Your task to perform on an android device: Go to notification settings Image 0: 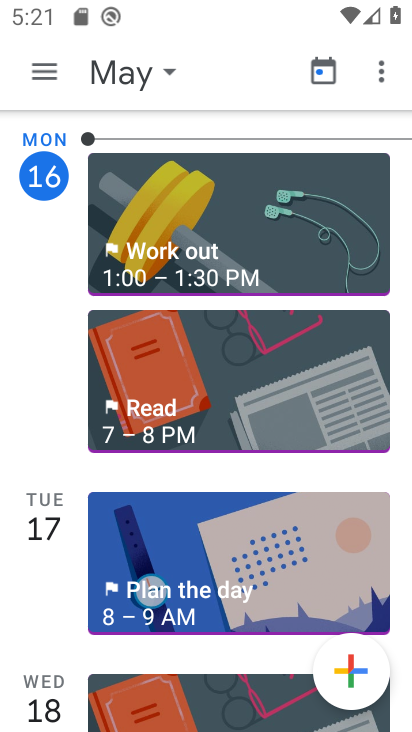
Step 0: press back button
Your task to perform on an android device: Go to notification settings Image 1: 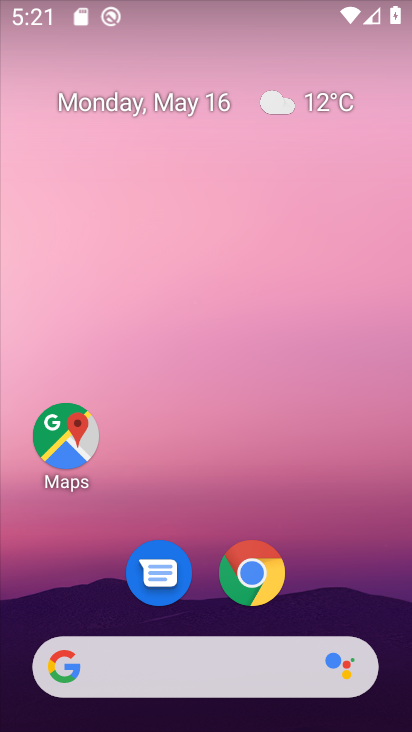
Step 1: press back button
Your task to perform on an android device: Go to notification settings Image 2: 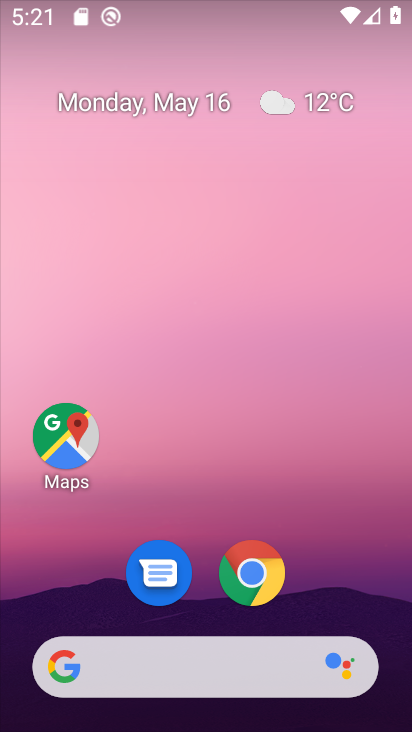
Step 2: drag from (193, 533) to (289, 42)
Your task to perform on an android device: Go to notification settings Image 3: 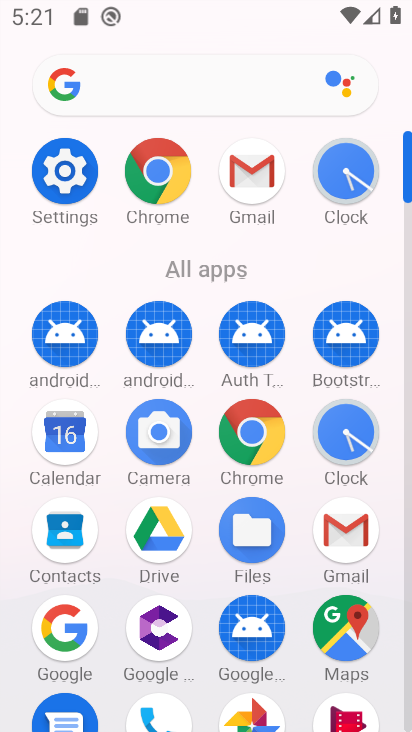
Step 3: click (61, 169)
Your task to perform on an android device: Go to notification settings Image 4: 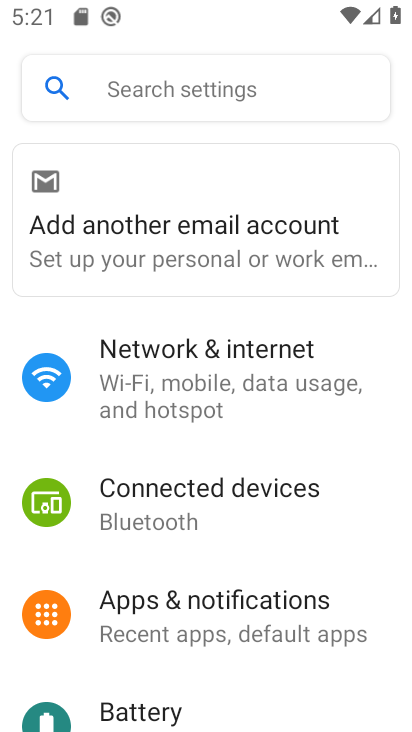
Step 4: click (232, 611)
Your task to perform on an android device: Go to notification settings Image 5: 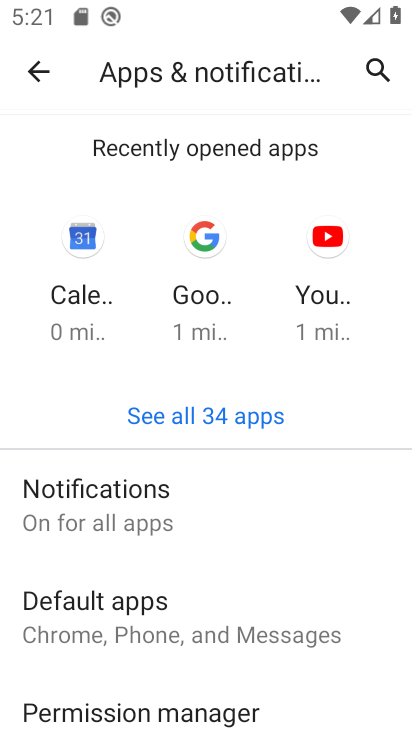
Step 5: task complete